Your task to perform on an android device: snooze an email in the gmail app Image 0: 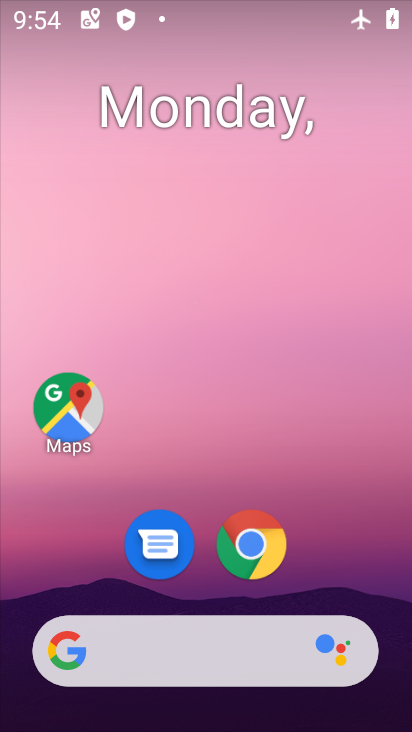
Step 0: drag from (287, 155) to (265, 15)
Your task to perform on an android device: snooze an email in the gmail app Image 1: 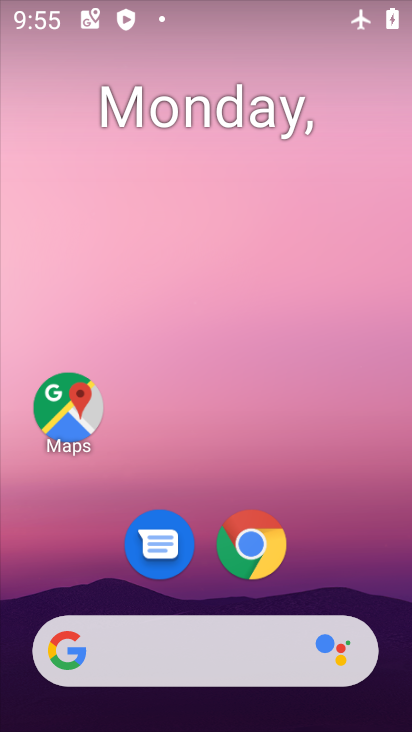
Step 1: drag from (335, 559) to (244, 44)
Your task to perform on an android device: snooze an email in the gmail app Image 2: 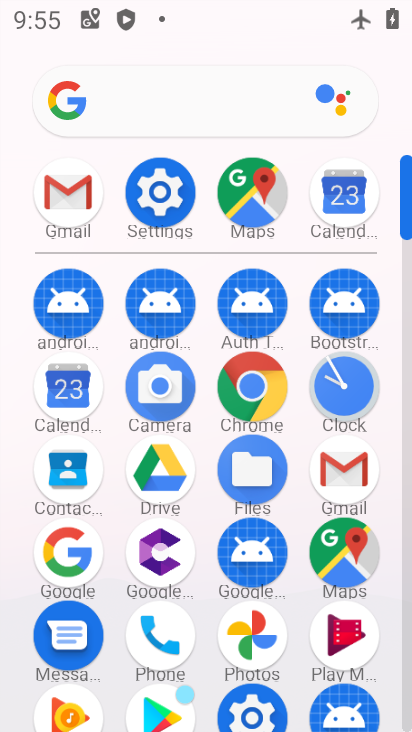
Step 2: click (62, 182)
Your task to perform on an android device: snooze an email in the gmail app Image 3: 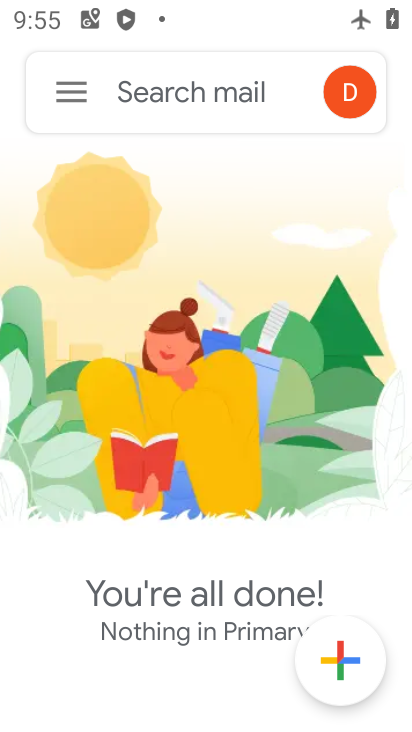
Step 3: click (65, 84)
Your task to perform on an android device: snooze an email in the gmail app Image 4: 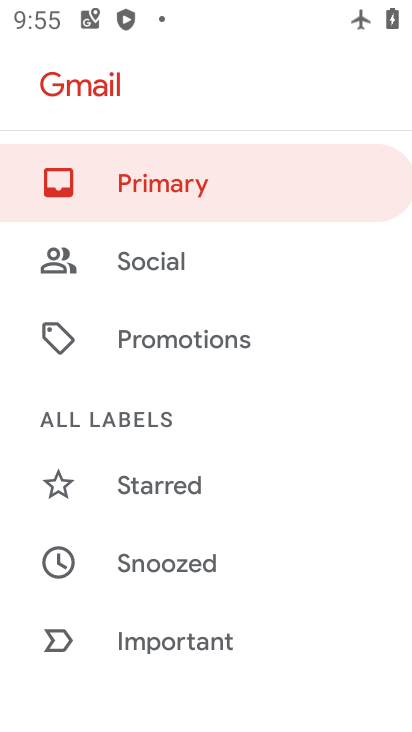
Step 4: drag from (247, 554) to (238, 246)
Your task to perform on an android device: snooze an email in the gmail app Image 5: 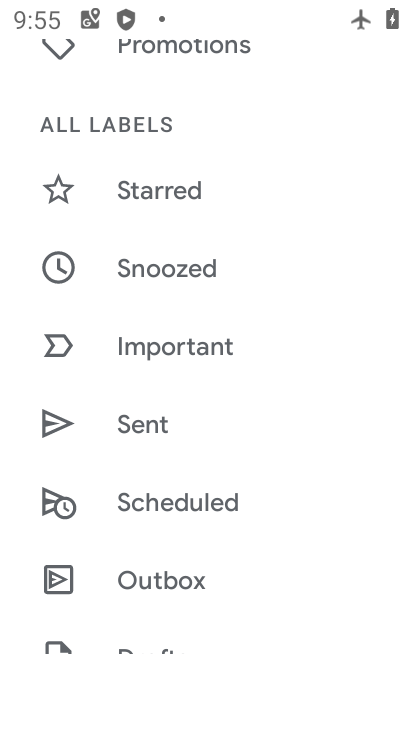
Step 5: click (161, 269)
Your task to perform on an android device: snooze an email in the gmail app Image 6: 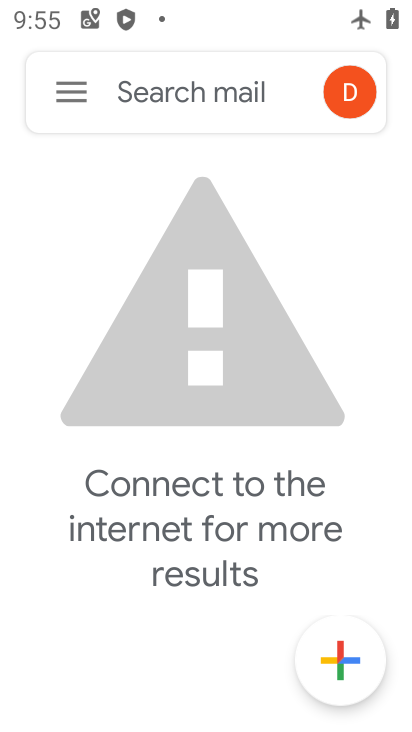
Step 6: task complete